Your task to perform on an android device: When is my next meeting? Image 0: 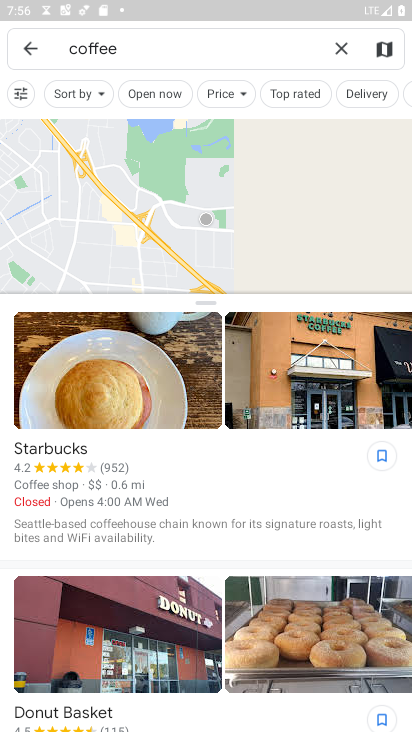
Step 0: press home button
Your task to perform on an android device: When is my next meeting? Image 1: 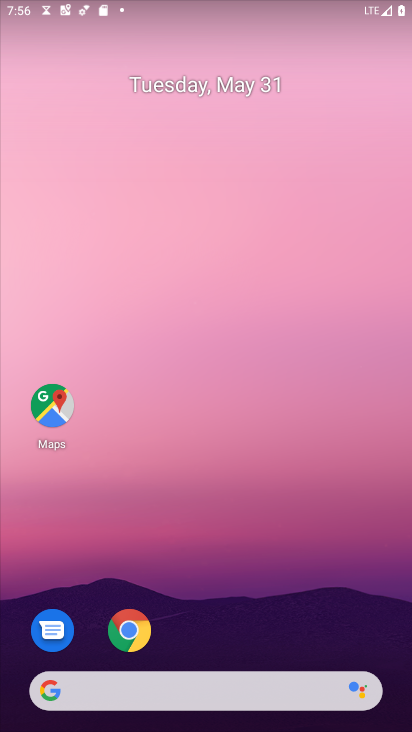
Step 1: drag from (244, 630) to (216, 115)
Your task to perform on an android device: When is my next meeting? Image 2: 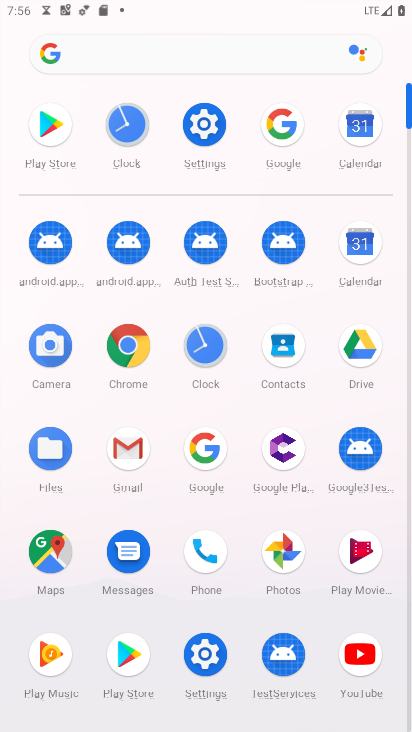
Step 2: click (365, 124)
Your task to perform on an android device: When is my next meeting? Image 3: 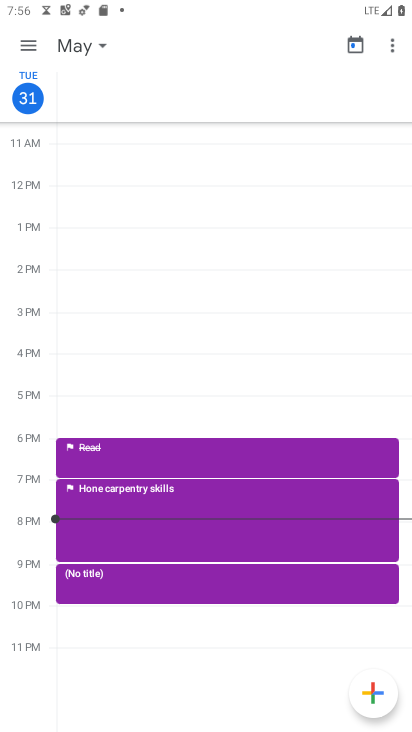
Step 3: click (354, 46)
Your task to perform on an android device: When is my next meeting? Image 4: 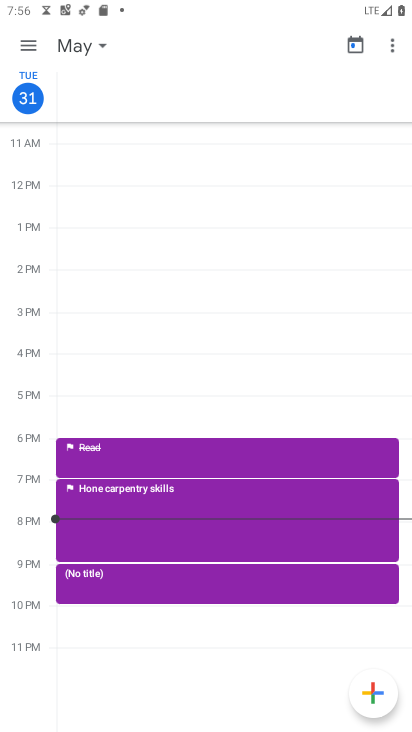
Step 4: click (101, 46)
Your task to perform on an android device: When is my next meeting? Image 5: 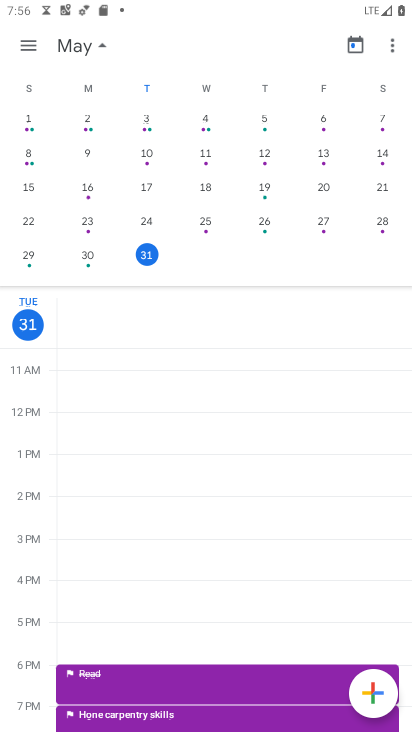
Step 5: drag from (349, 196) to (72, 195)
Your task to perform on an android device: When is my next meeting? Image 6: 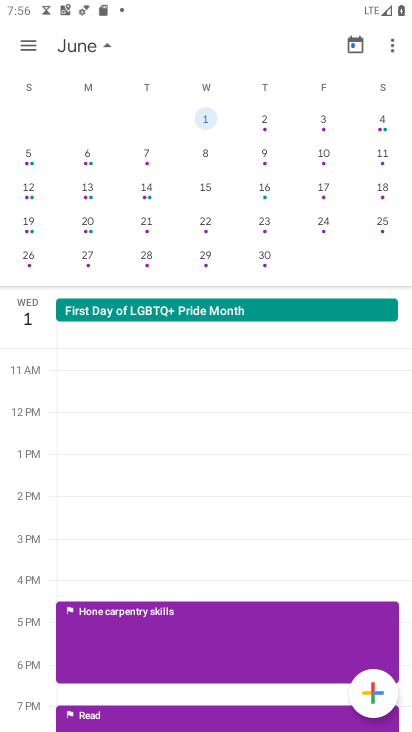
Step 6: click (21, 39)
Your task to perform on an android device: When is my next meeting? Image 7: 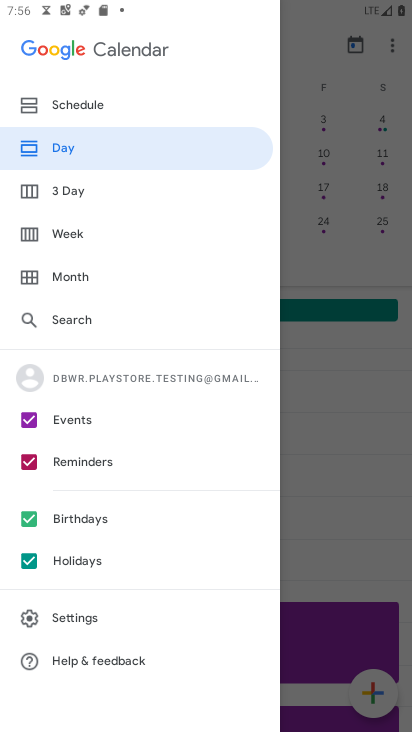
Step 7: click (80, 110)
Your task to perform on an android device: When is my next meeting? Image 8: 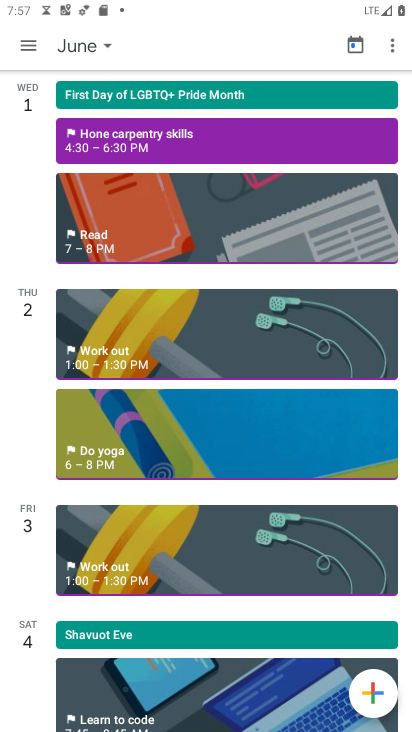
Step 8: task complete